Your task to perform on an android device: turn off wifi Image 0: 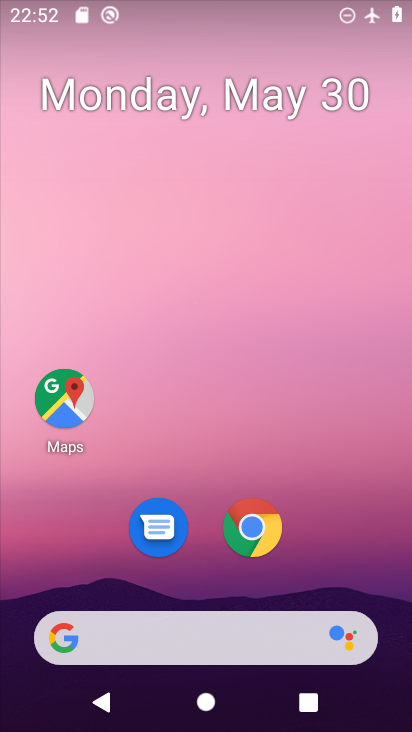
Step 0: drag from (327, 544) to (281, 201)
Your task to perform on an android device: turn off wifi Image 1: 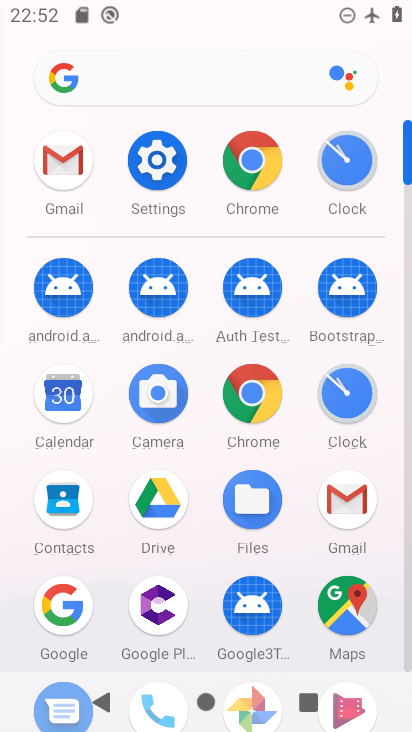
Step 1: click (163, 161)
Your task to perform on an android device: turn off wifi Image 2: 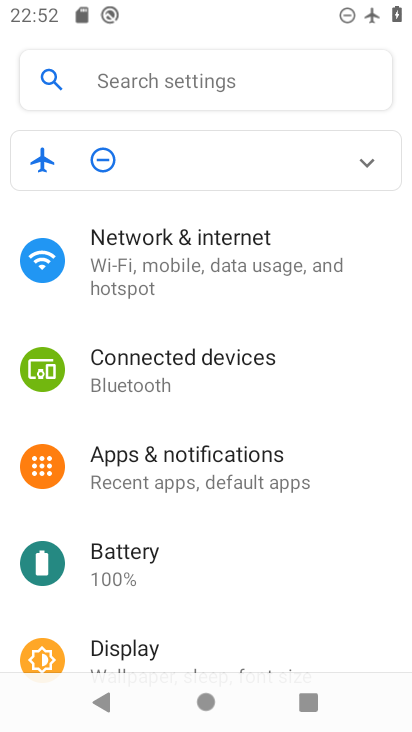
Step 2: click (193, 267)
Your task to perform on an android device: turn off wifi Image 3: 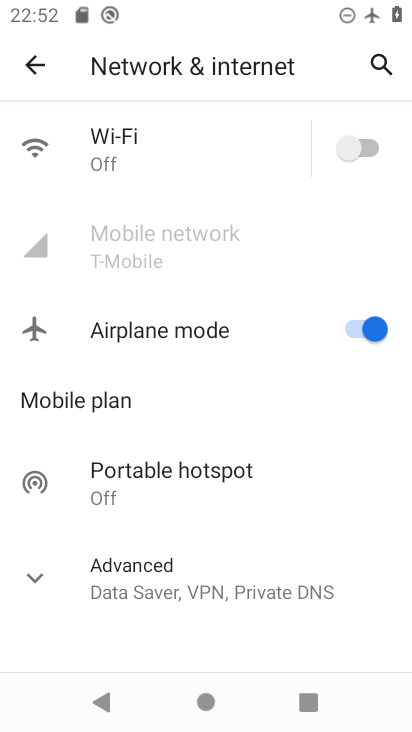
Step 3: task complete